Your task to perform on an android device: turn pop-ups on in chrome Image 0: 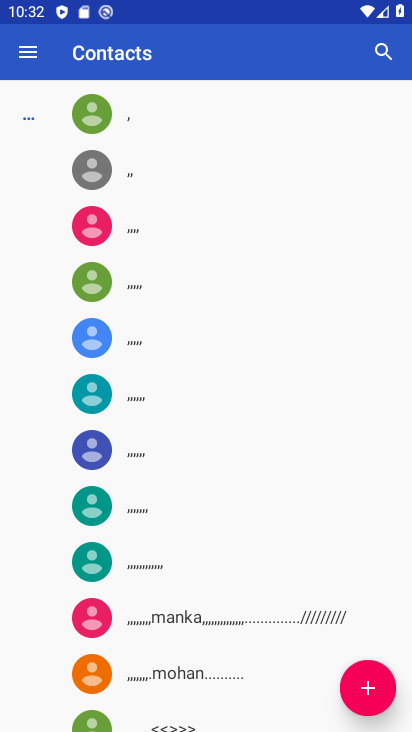
Step 0: press home button
Your task to perform on an android device: turn pop-ups on in chrome Image 1: 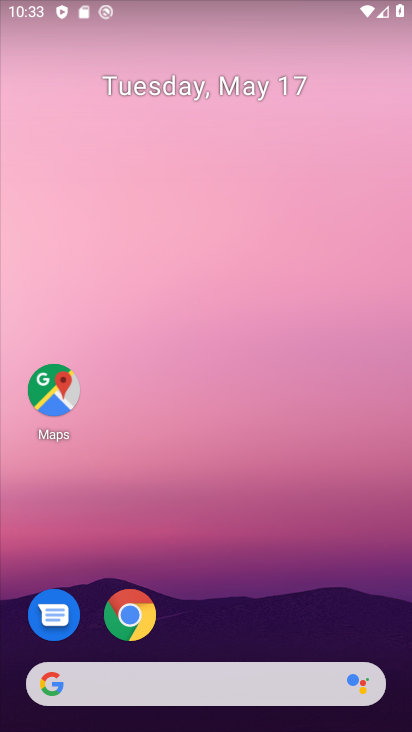
Step 1: click (126, 617)
Your task to perform on an android device: turn pop-ups on in chrome Image 2: 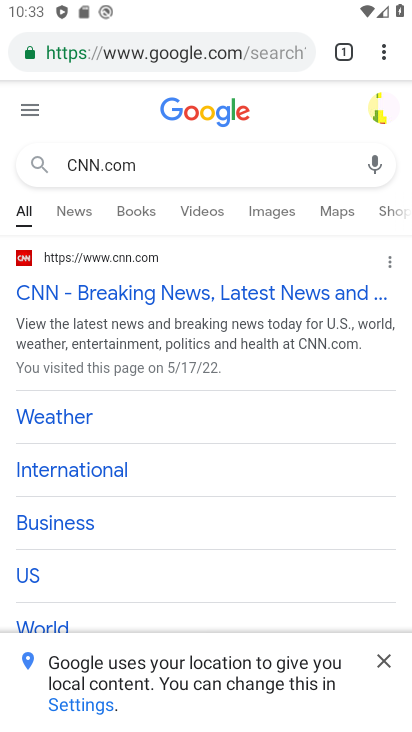
Step 2: press home button
Your task to perform on an android device: turn pop-ups on in chrome Image 3: 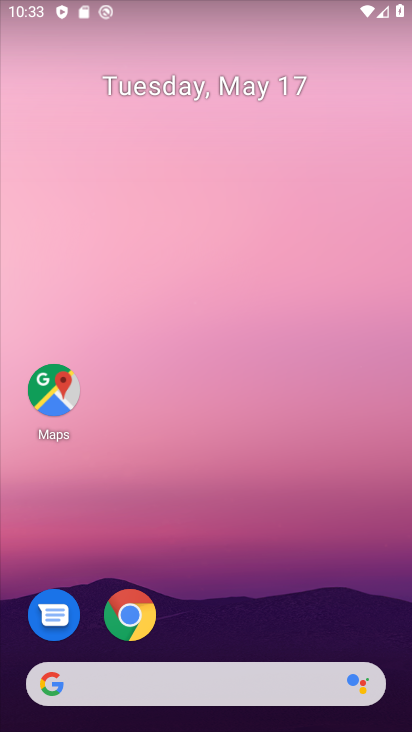
Step 3: click (120, 596)
Your task to perform on an android device: turn pop-ups on in chrome Image 4: 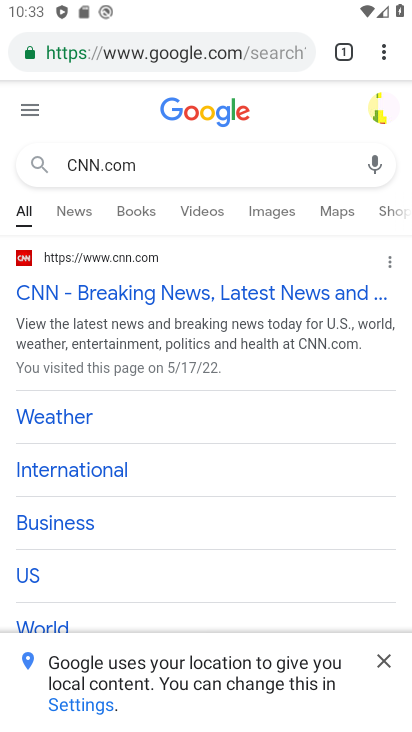
Step 4: click (385, 53)
Your task to perform on an android device: turn pop-ups on in chrome Image 5: 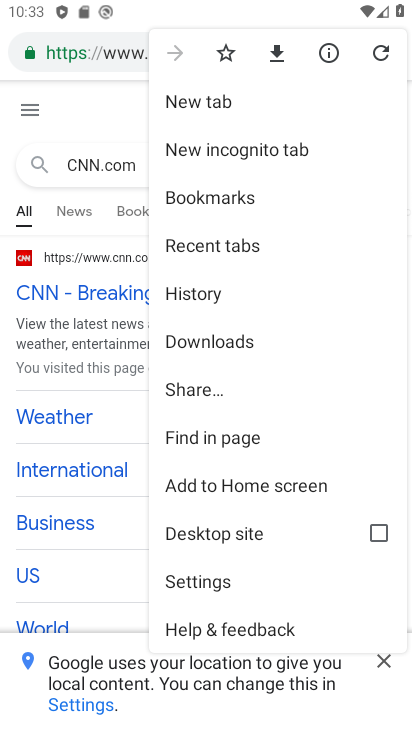
Step 5: click (210, 584)
Your task to perform on an android device: turn pop-ups on in chrome Image 6: 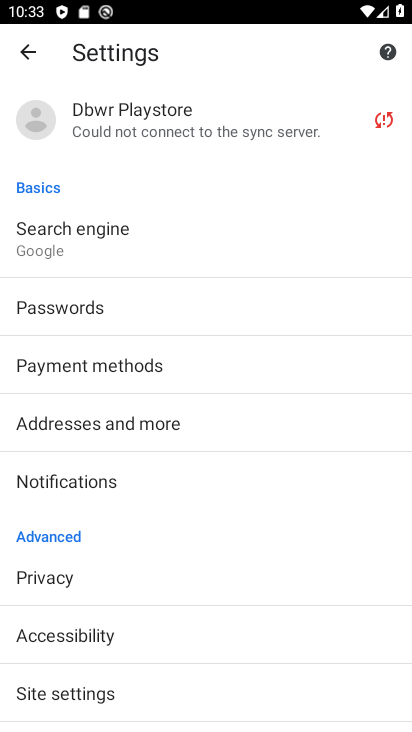
Step 6: click (95, 686)
Your task to perform on an android device: turn pop-ups on in chrome Image 7: 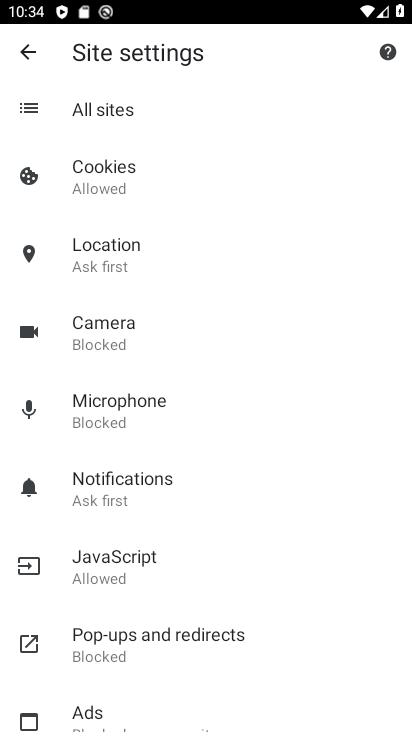
Step 7: click (132, 639)
Your task to perform on an android device: turn pop-ups on in chrome Image 8: 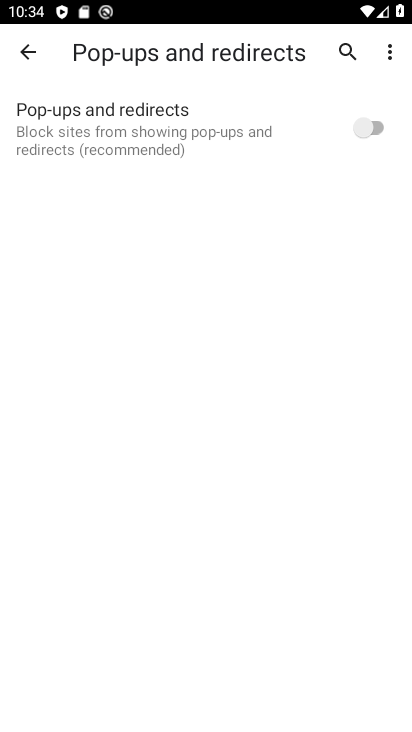
Step 8: click (366, 130)
Your task to perform on an android device: turn pop-ups on in chrome Image 9: 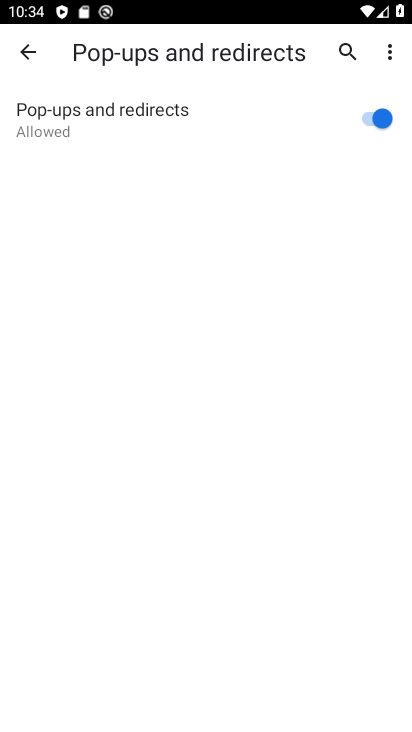
Step 9: task complete